Your task to perform on an android device: Go to privacy settings Image 0: 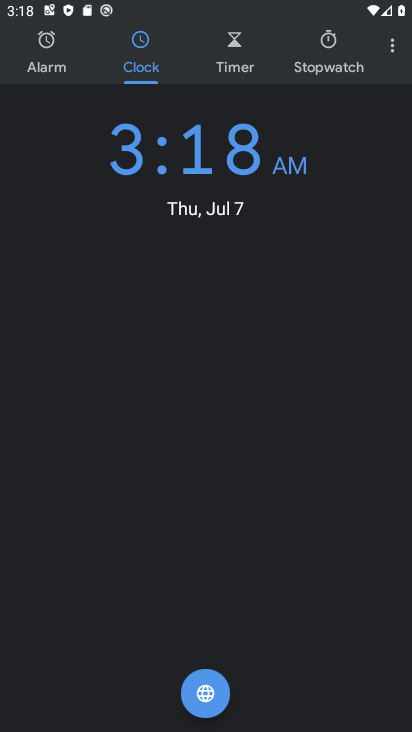
Step 0: press home button
Your task to perform on an android device: Go to privacy settings Image 1: 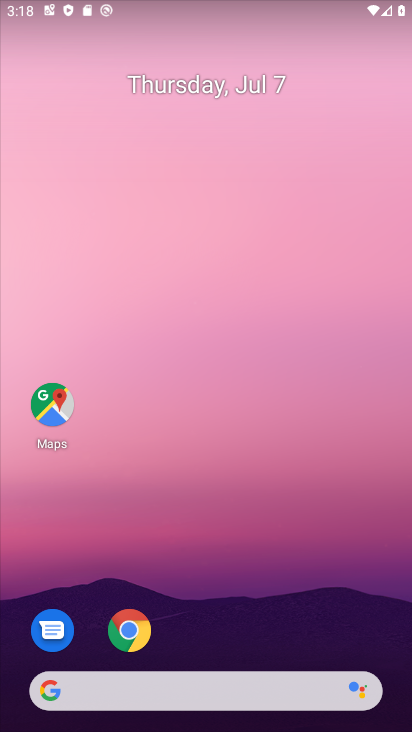
Step 1: drag from (241, 588) to (336, 12)
Your task to perform on an android device: Go to privacy settings Image 2: 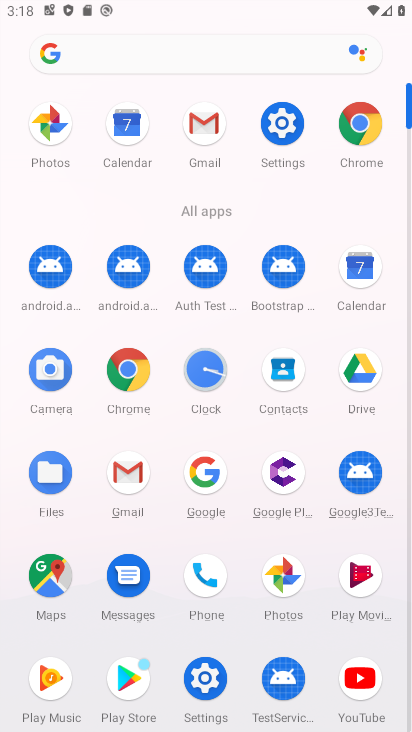
Step 2: click (205, 679)
Your task to perform on an android device: Go to privacy settings Image 3: 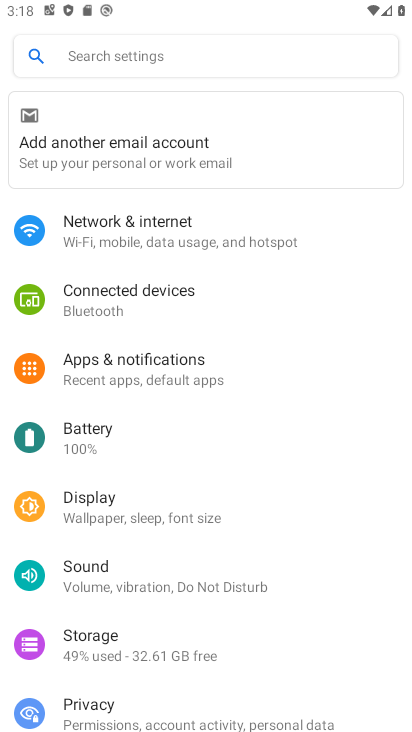
Step 3: click (91, 701)
Your task to perform on an android device: Go to privacy settings Image 4: 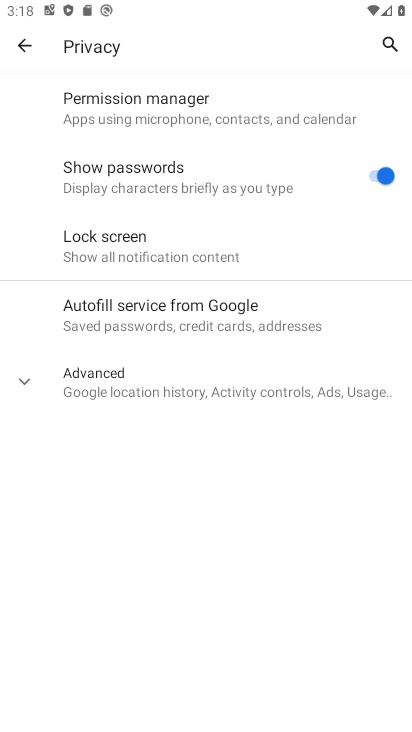
Step 4: task complete